Your task to perform on an android device: toggle show notifications on the lock screen Image 0: 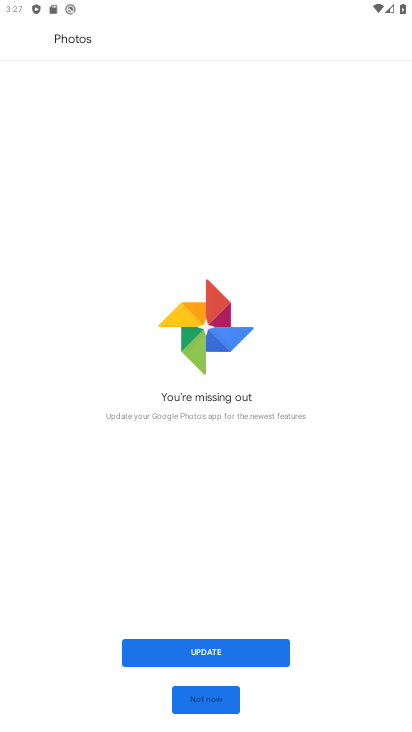
Step 0: press home button
Your task to perform on an android device: toggle show notifications on the lock screen Image 1: 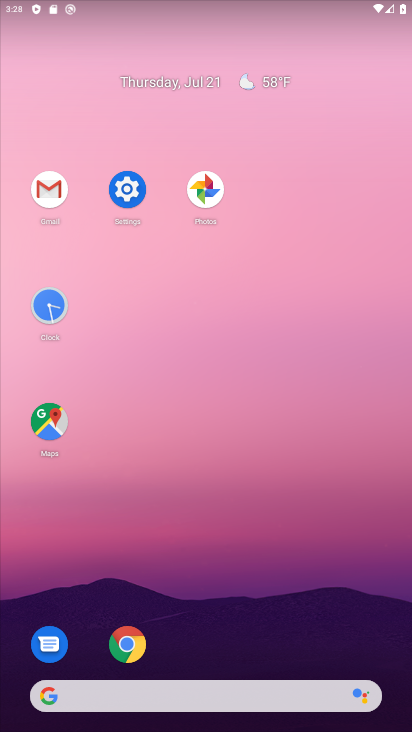
Step 1: click (128, 187)
Your task to perform on an android device: toggle show notifications on the lock screen Image 2: 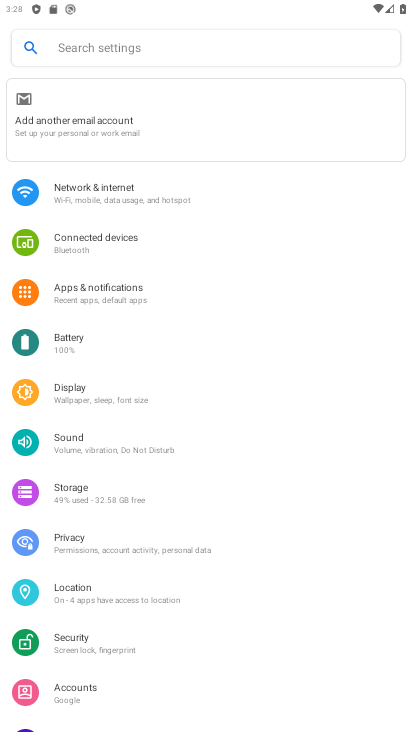
Step 2: click (138, 289)
Your task to perform on an android device: toggle show notifications on the lock screen Image 3: 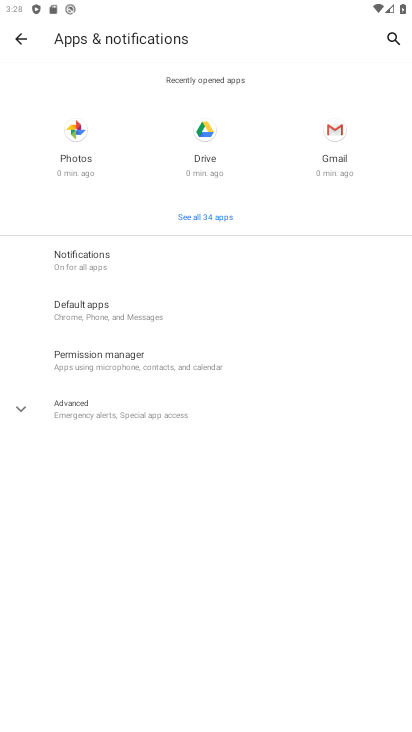
Step 3: click (165, 259)
Your task to perform on an android device: toggle show notifications on the lock screen Image 4: 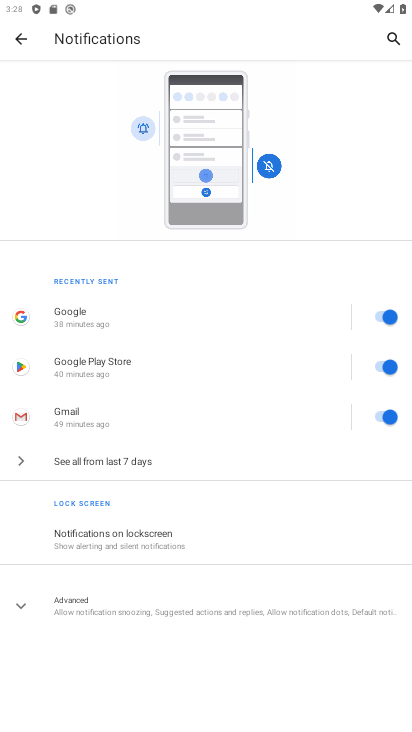
Step 4: click (101, 592)
Your task to perform on an android device: toggle show notifications on the lock screen Image 5: 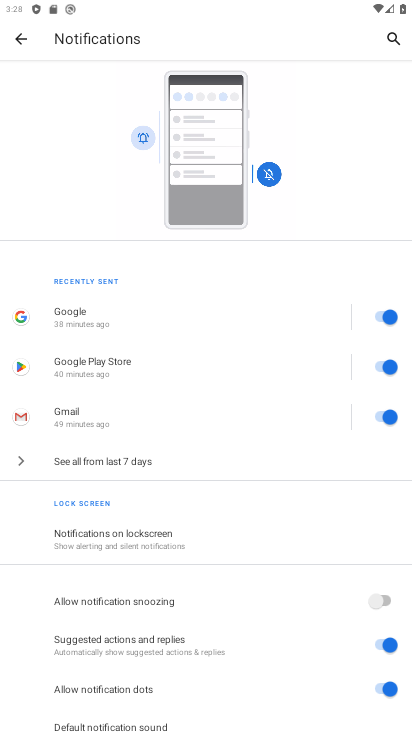
Step 5: task complete